Your task to perform on an android device: change your default location settings in chrome Image 0: 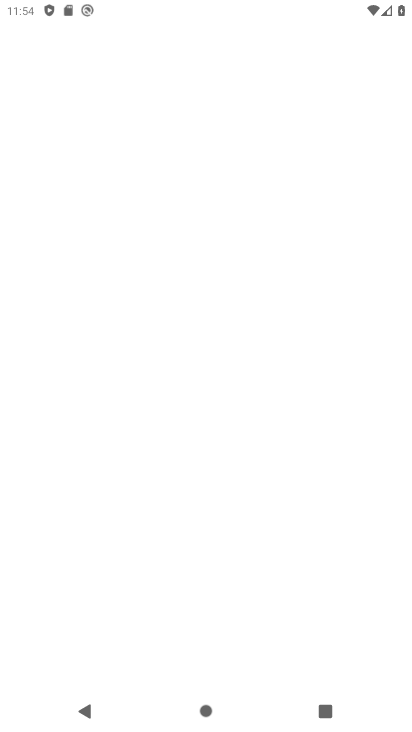
Step 0: drag from (180, 650) to (165, 295)
Your task to perform on an android device: change your default location settings in chrome Image 1: 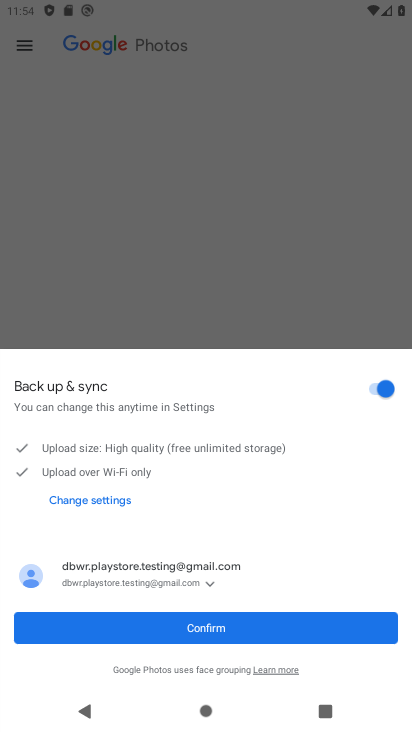
Step 1: press home button
Your task to perform on an android device: change your default location settings in chrome Image 2: 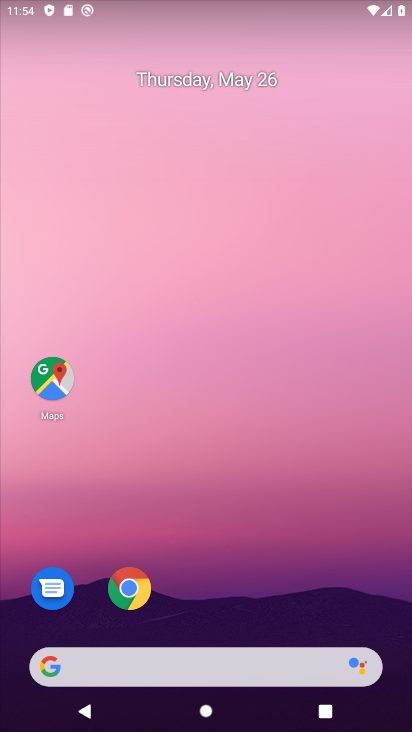
Step 2: drag from (232, 654) to (188, 201)
Your task to perform on an android device: change your default location settings in chrome Image 3: 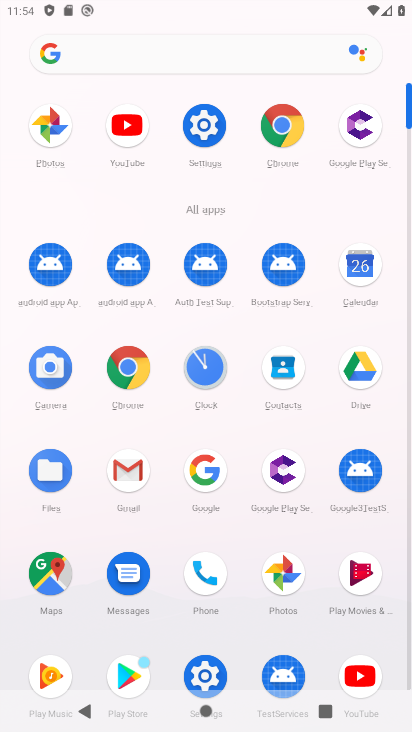
Step 3: click (275, 130)
Your task to perform on an android device: change your default location settings in chrome Image 4: 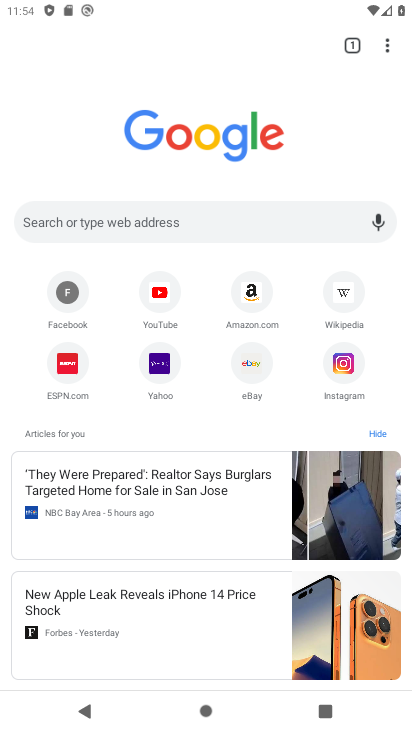
Step 4: click (386, 46)
Your task to perform on an android device: change your default location settings in chrome Image 5: 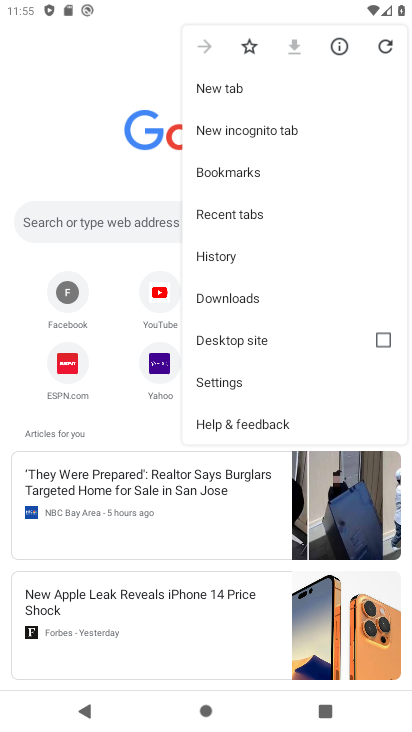
Step 5: click (227, 379)
Your task to perform on an android device: change your default location settings in chrome Image 6: 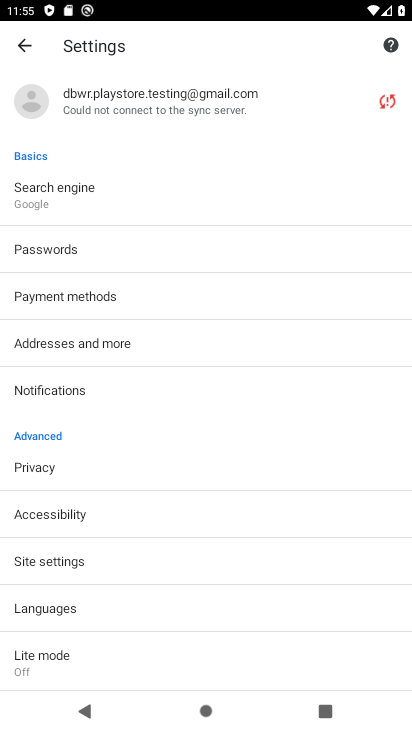
Step 6: click (62, 199)
Your task to perform on an android device: change your default location settings in chrome Image 7: 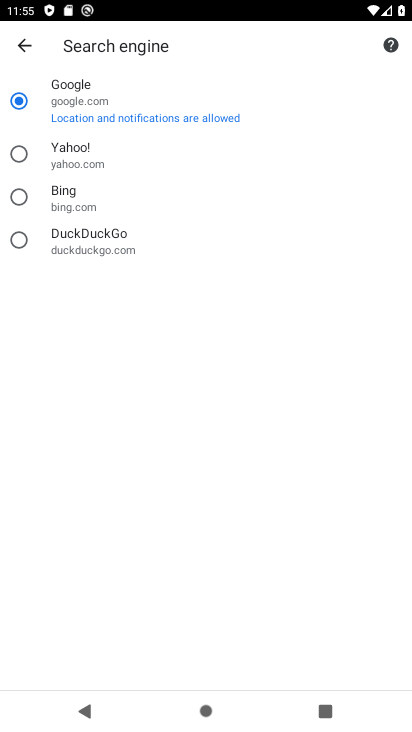
Step 7: click (23, 52)
Your task to perform on an android device: change your default location settings in chrome Image 8: 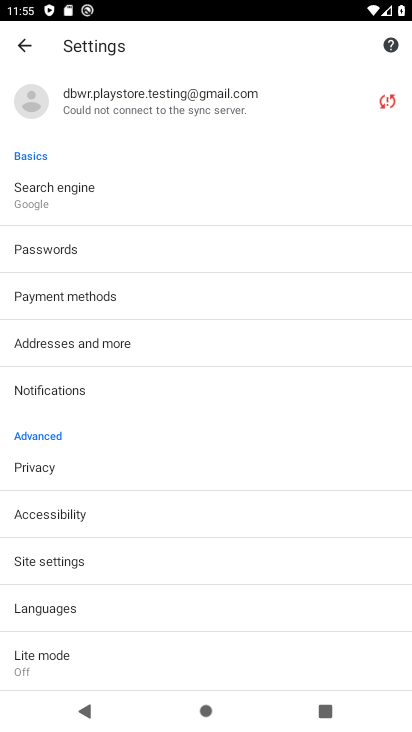
Step 8: drag from (118, 650) to (75, 312)
Your task to perform on an android device: change your default location settings in chrome Image 9: 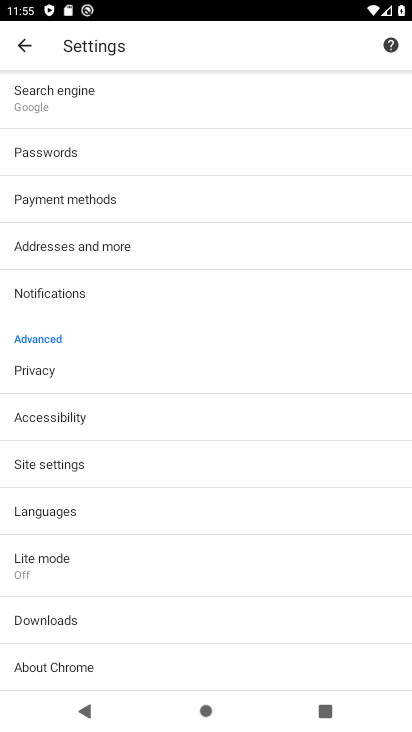
Step 9: drag from (85, 670) to (67, 444)
Your task to perform on an android device: change your default location settings in chrome Image 10: 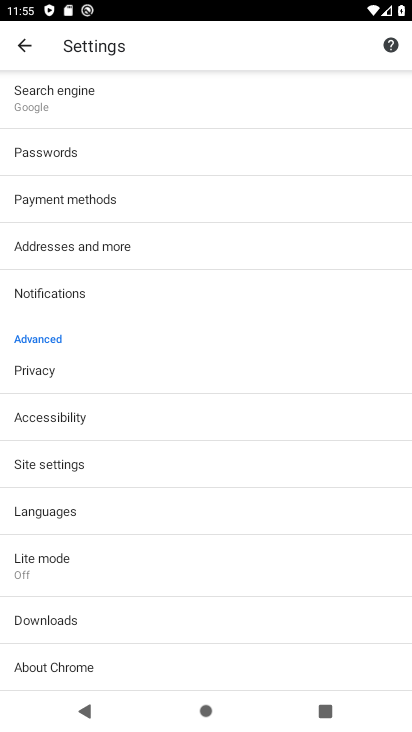
Step 10: click (48, 464)
Your task to perform on an android device: change your default location settings in chrome Image 11: 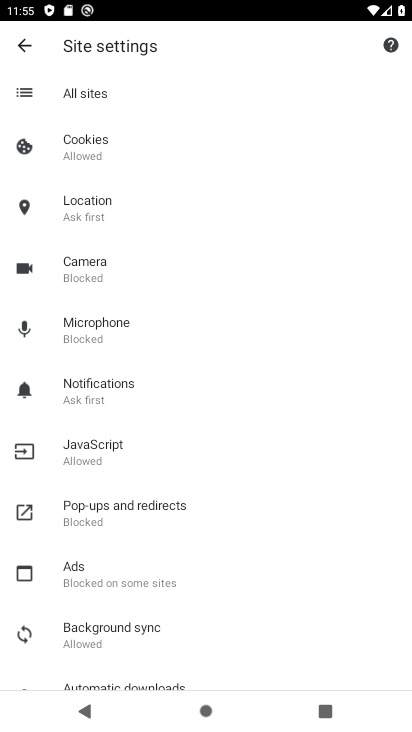
Step 11: click (75, 194)
Your task to perform on an android device: change your default location settings in chrome Image 12: 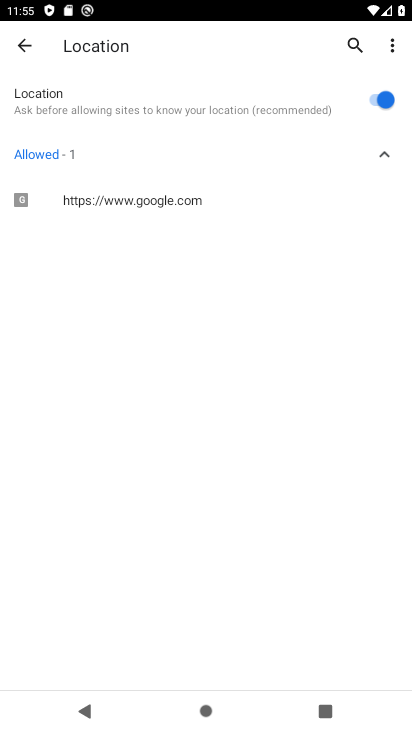
Step 12: click (372, 95)
Your task to perform on an android device: change your default location settings in chrome Image 13: 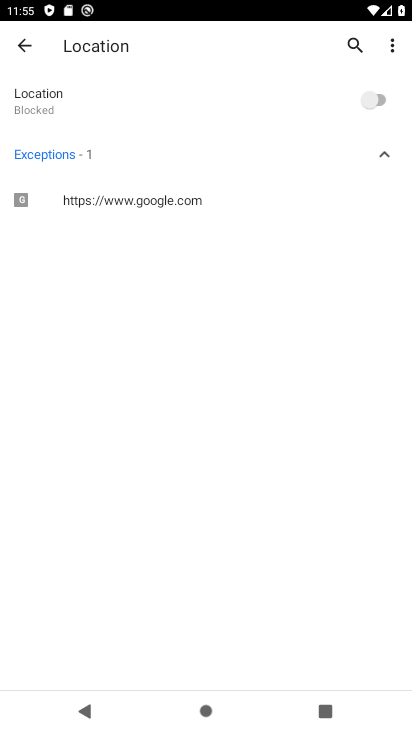
Step 13: task complete